Your task to perform on an android device: Go to Google maps Image 0: 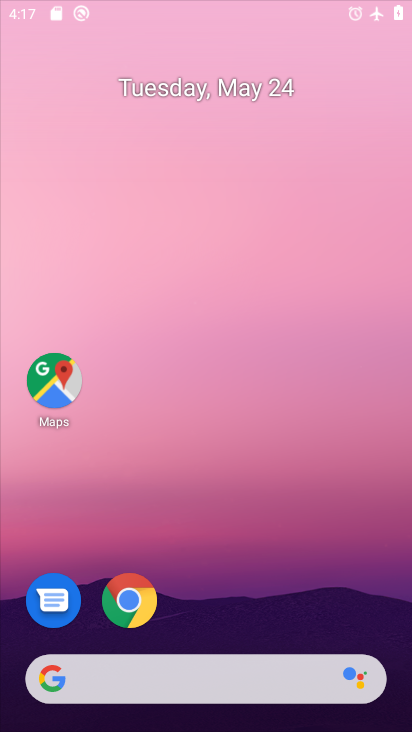
Step 0: press home button
Your task to perform on an android device: Go to Google maps Image 1: 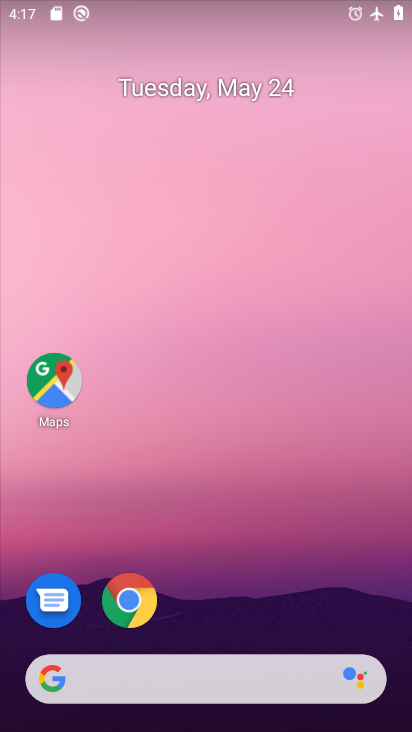
Step 1: drag from (251, 671) to (400, 13)
Your task to perform on an android device: Go to Google maps Image 2: 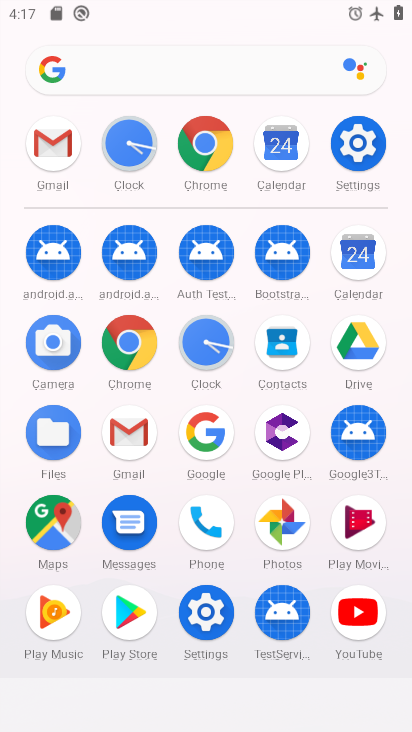
Step 2: click (47, 518)
Your task to perform on an android device: Go to Google maps Image 3: 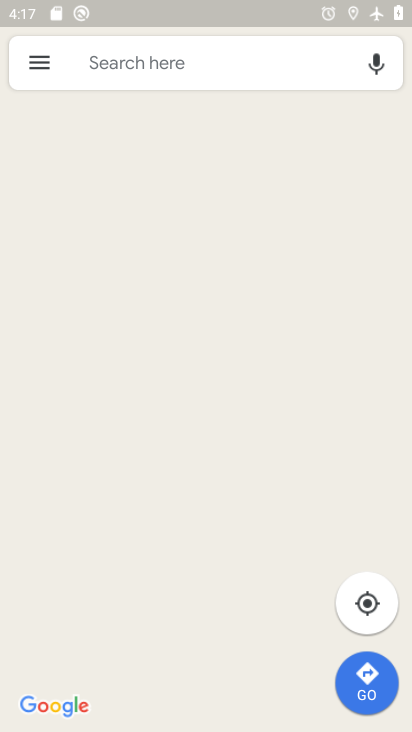
Step 3: task complete